Your task to perform on an android device: Go to privacy settings Image 0: 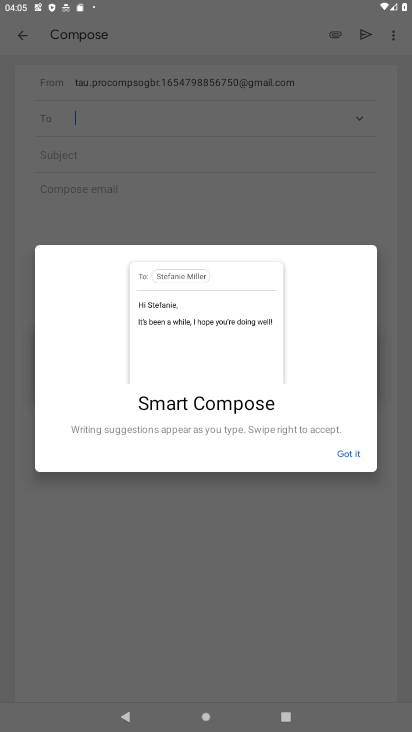
Step 0: press home button
Your task to perform on an android device: Go to privacy settings Image 1: 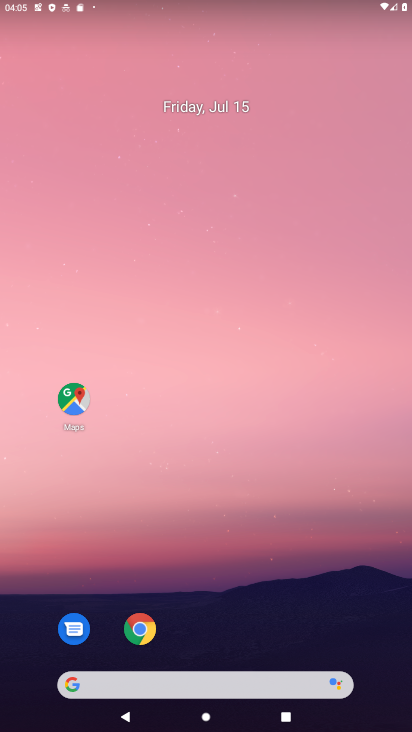
Step 1: drag from (201, 627) to (190, 186)
Your task to perform on an android device: Go to privacy settings Image 2: 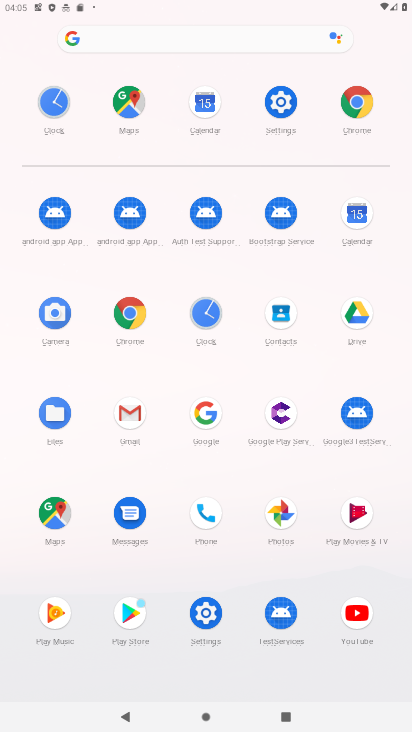
Step 2: click (196, 604)
Your task to perform on an android device: Go to privacy settings Image 3: 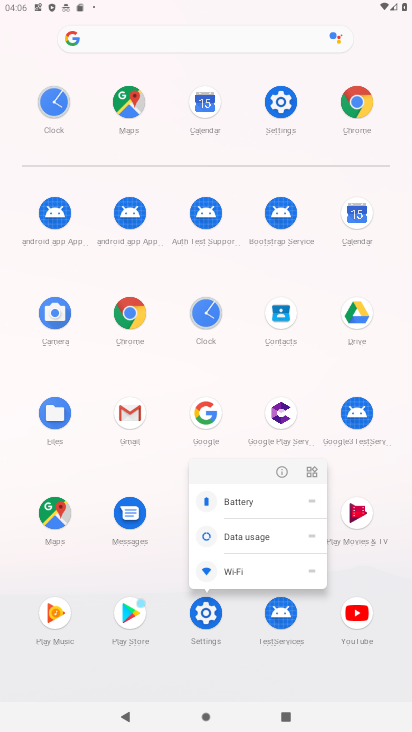
Step 3: click (201, 610)
Your task to perform on an android device: Go to privacy settings Image 4: 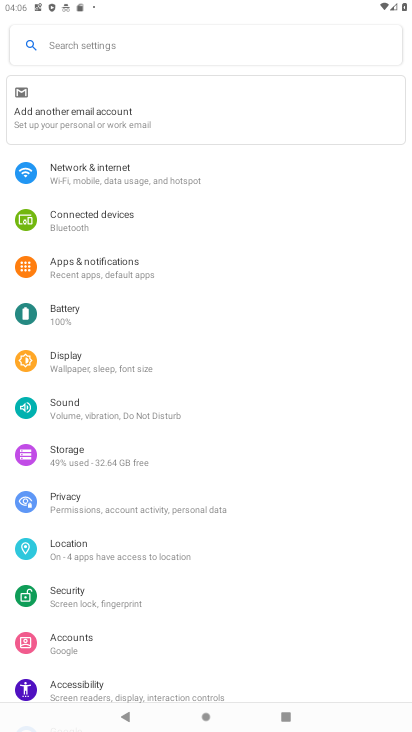
Step 4: click (88, 505)
Your task to perform on an android device: Go to privacy settings Image 5: 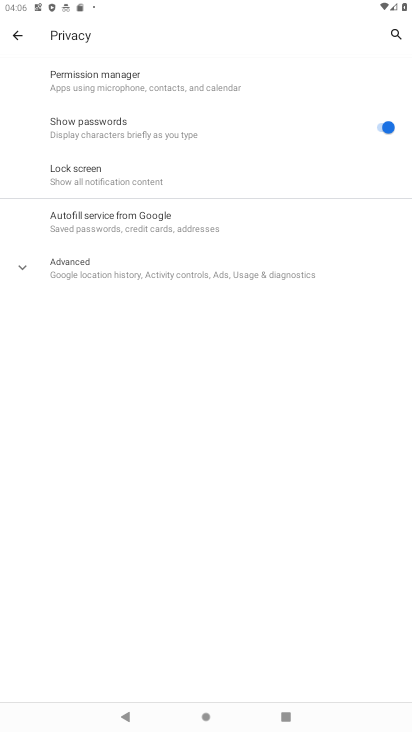
Step 5: click (75, 259)
Your task to perform on an android device: Go to privacy settings Image 6: 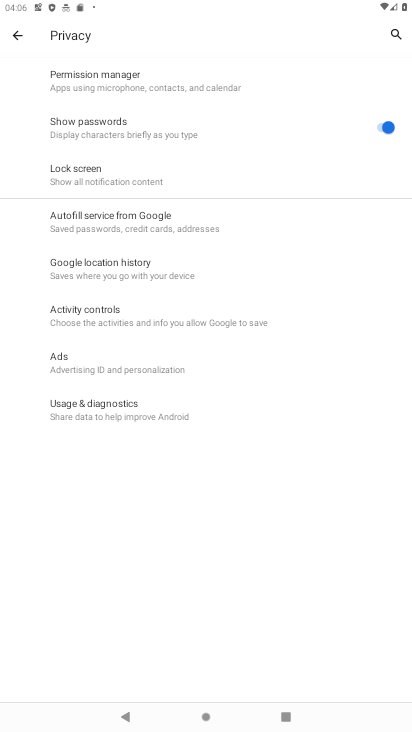
Step 6: task complete